Your task to perform on an android device: Add apple airpods to the cart on walmart.com, then select checkout. Image 0: 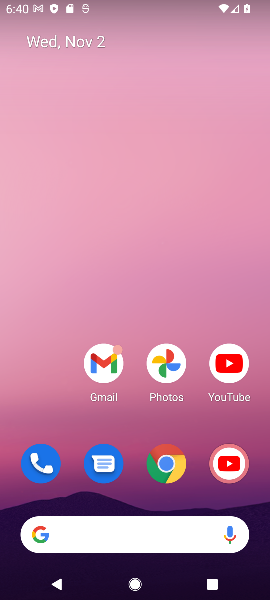
Step 0: click (161, 471)
Your task to perform on an android device: Add apple airpods to the cart on walmart.com, then select checkout. Image 1: 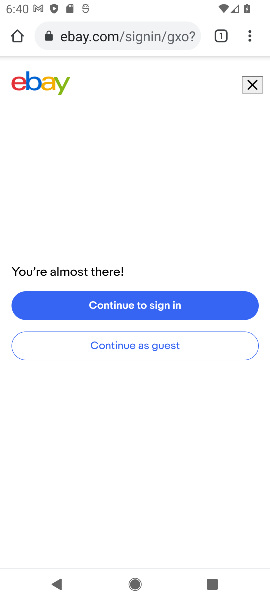
Step 1: click (114, 39)
Your task to perform on an android device: Add apple airpods to the cart on walmart.com, then select checkout. Image 2: 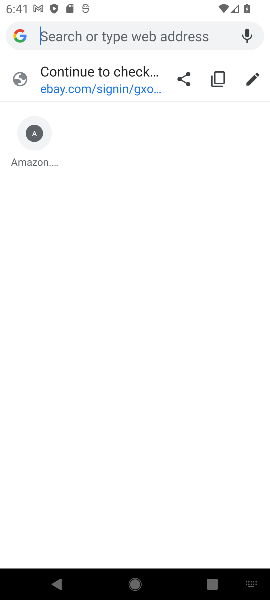
Step 2: type "walmart.com"
Your task to perform on an android device: Add apple airpods to the cart on walmart.com, then select checkout. Image 3: 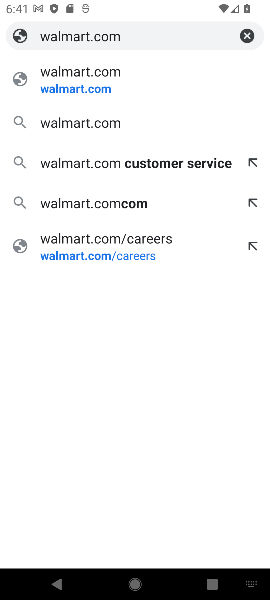
Step 3: click (61, 92)
Your task to perform on an android device: Add apple airpods to the cart on walmart.com, then select checkout. Image 4: 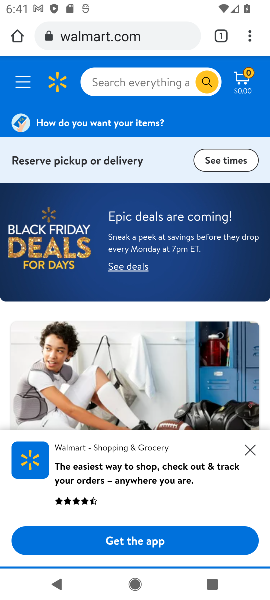
Step 4: click (126, 79)
Your task to perform on an android device: Add apple airpods to the cart on walmart.com, then select checkout. Image 5: 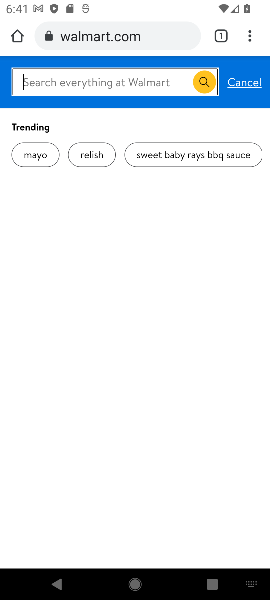
Step 5: type "apple airpods"
Your task to perform on an android device: Add apple airpods to the cart on walmart.com, then select checkout. Image 6: 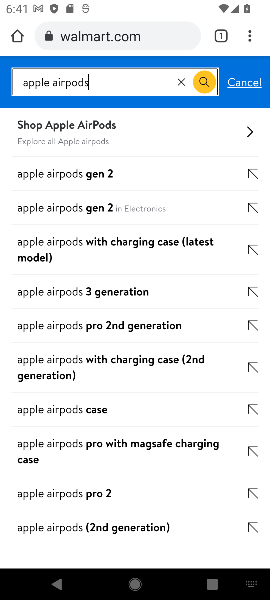
Step 6: click (65, 138)
Your task to perform on an android device: Add apple airpods to the cart on walmart.com, then select checkout. Image 7: 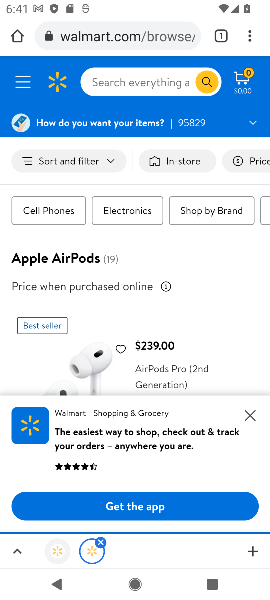
Step 7: click (249, 411)
Your task to perform on an android device: Add apple airpods to the cart on walmart.com, then select checkout. Image 8: 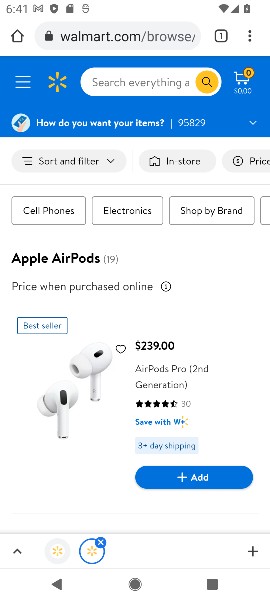
Step 8: click (82, 377)
Your task to perform on an android device: Add apple airpods to the cart on walmart.com, then select checkout. Image 9: 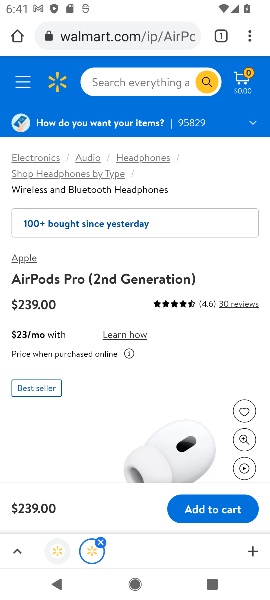
Step 9: click (209, 514)
Your task to perform on an android device: Add apple airpods to the cart on walmart.com, then select checkout. Image 10: 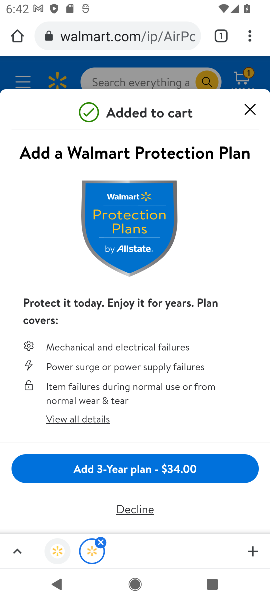
Step 10: click (253, 115)
Your task to perform on an android device: Add apple airpods to the cart on walmart.com, then select checkout. Image 11: 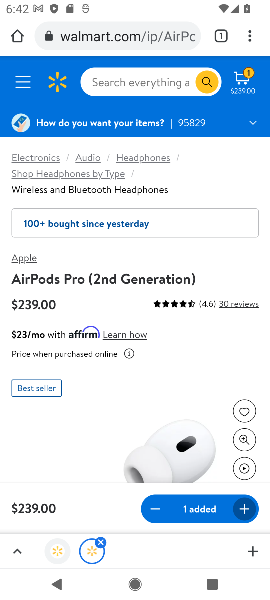
Step 11: click (237, 81)
Your task to perform on an android device: Add apple airpods to the cart on walmart.com, then select checkout. Image 12: 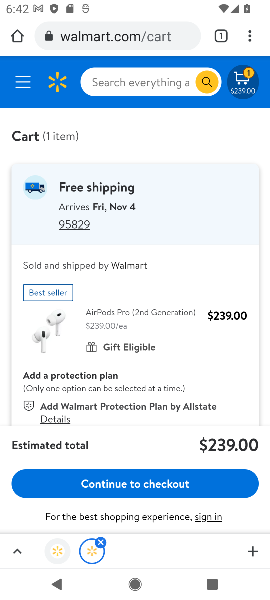
Step 12: click (124, 484)
Your task to perform on an android device: Add apple airpods to the cart on walmart.com, then select checkout. Image 13: 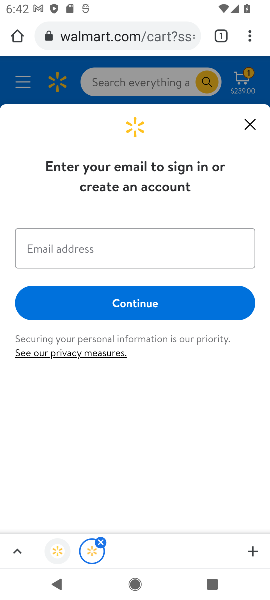
Step 13: task complete